Your task to perform on an android device: Open Google Chrome Image 0: 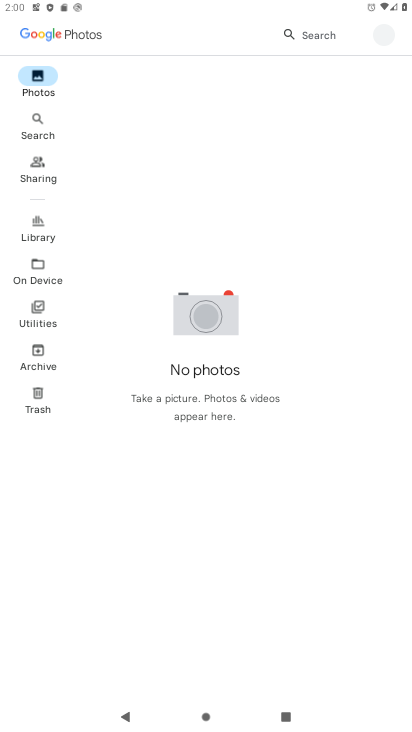
Step 0: press home button
Your task to perform on an android device: Open Google Chrome Image 1: 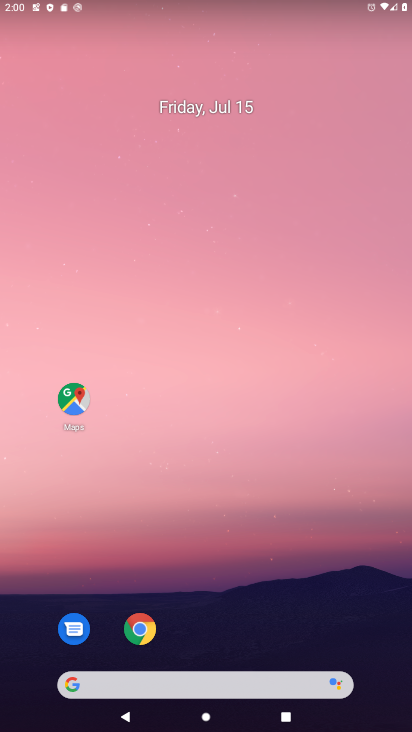
Step 1: drag from (367, 563) to (296, 23)
Your task to perform on an android device: Open Google Chrome Image 2: 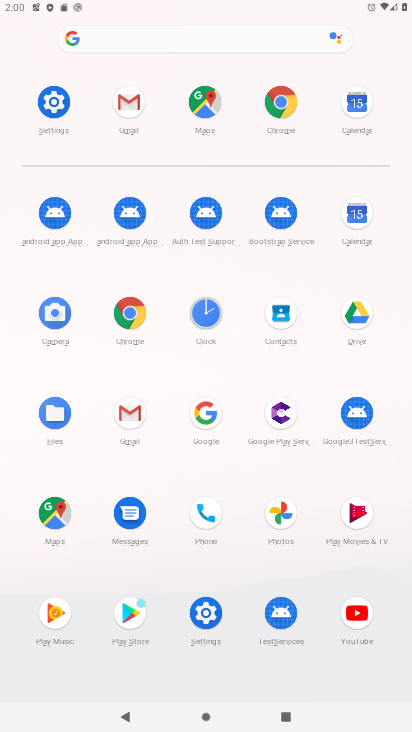
Step 2: click (280, 97)
Your task to perform on an android device: Open Google Chrome Image 3: 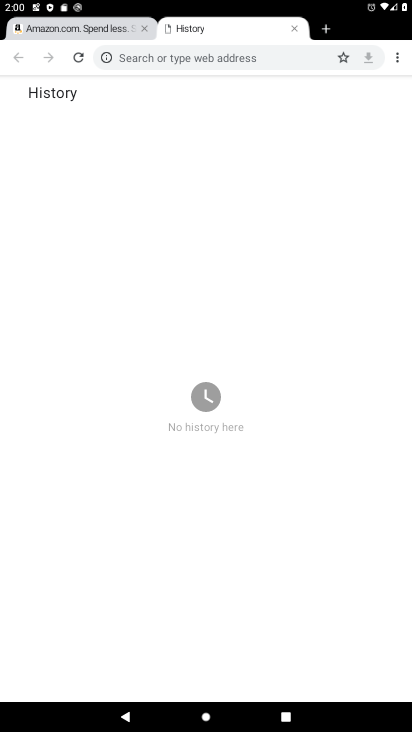
Step 3: task complete